Your task to perform on an android device: Open calendar and show me the first week of next month Image 0: 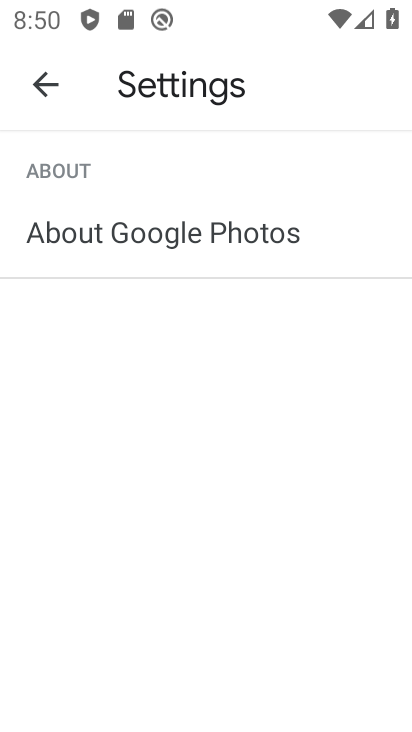
Step 0: press home button
Your task to perform on an android device: Open calendar and show me the first week of next month Image 1: 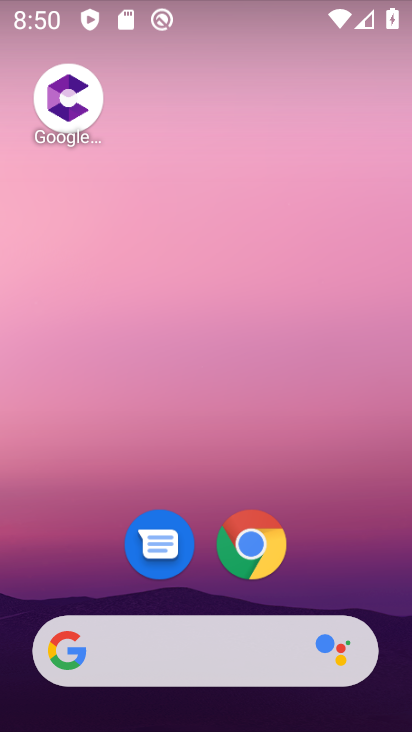
Step 1: drag from (204, 595) to (283, 27)
Your task to perform on an android device: Open calendar and show me the first week of next month Image 2: 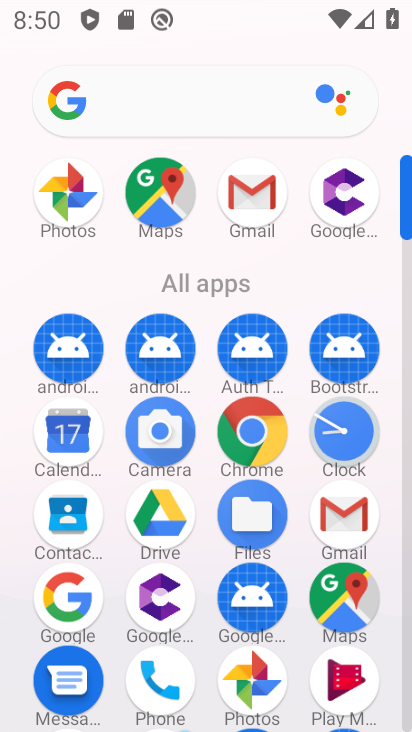
Step 2: click (67, 464)
Your task to perform on an android device: Open calendar and show me the first week of next month Image 3: 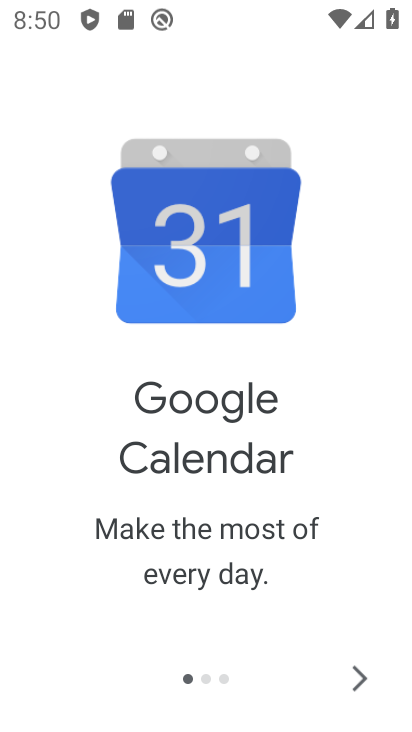
Step 3: click (353, 674)
Your task to perform on an android device: Open calendar and show me the first week of next month Image 4: 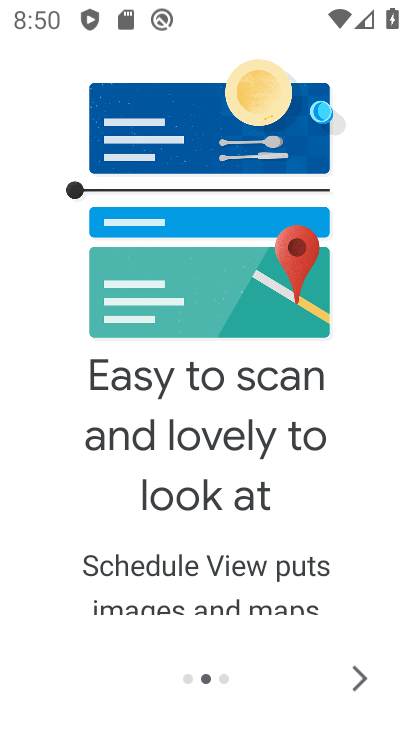
Step 4: click (359, 678)
Your task to perform on an android device: Open calendar and show me the first week of next month Image 5: 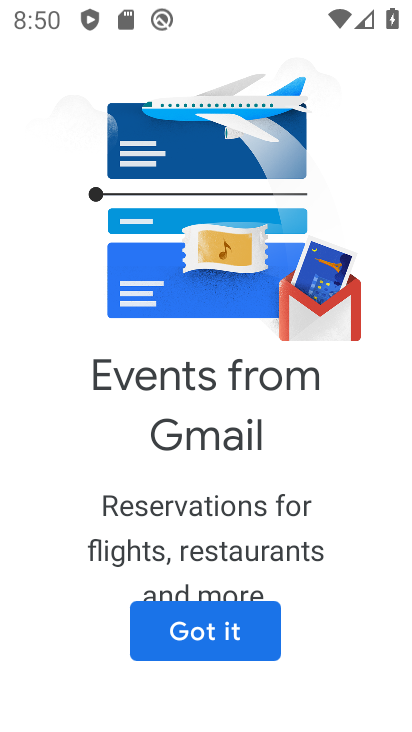
Step 5: click (203, 646)
Your task to perform on an android device: Open calendar and show me the first week of next month Image 6: 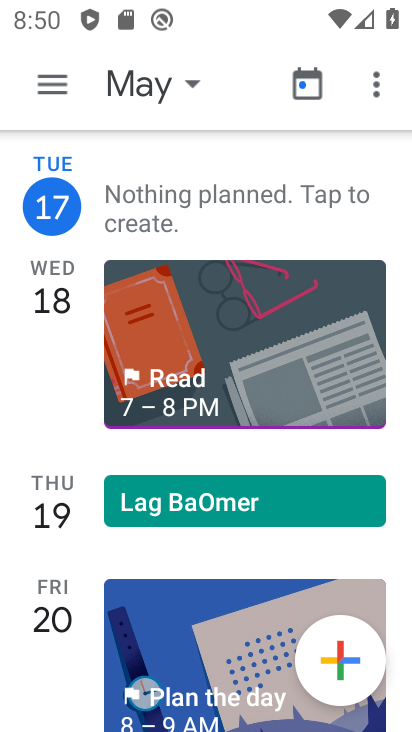
Step 6: click (50, 81)
Your task to perform on an android device: Open calendar and show me the first week of next month Image 7: 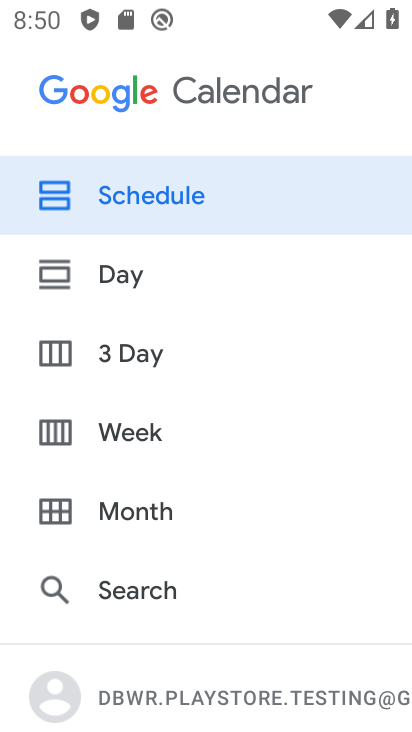
Step 7: click (134, 411)
Your task to perform on an android device: Open calendar and show me the first week of next month Image 8: 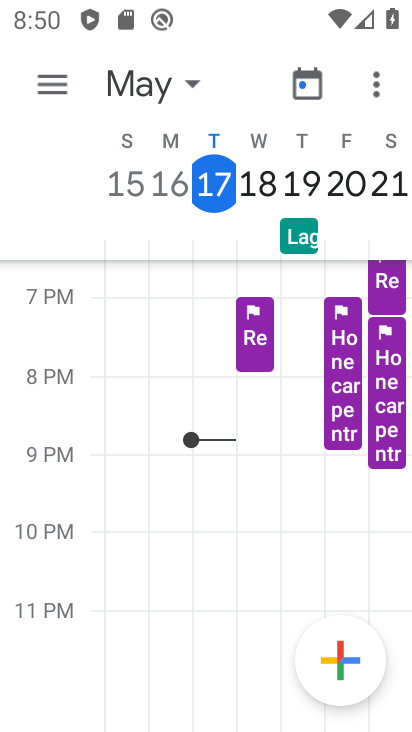
Step 8: task complete